Your task to perform on an android device: Go to notification settings Image 0: 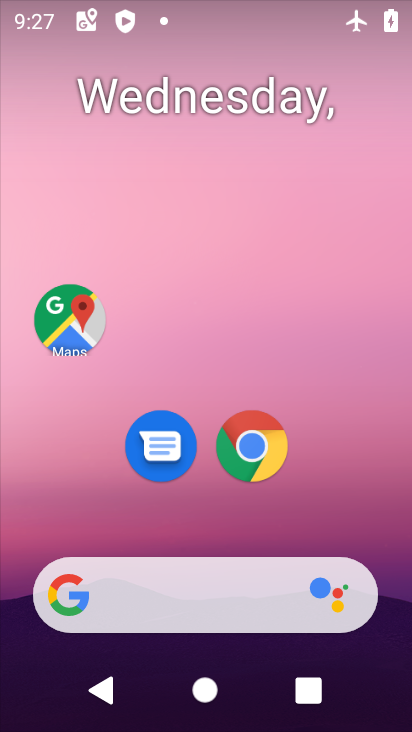
Step 0: drag from (159, 533) to (259, 211)
Your task to perform on an android device: Go to notification settings Image 1: 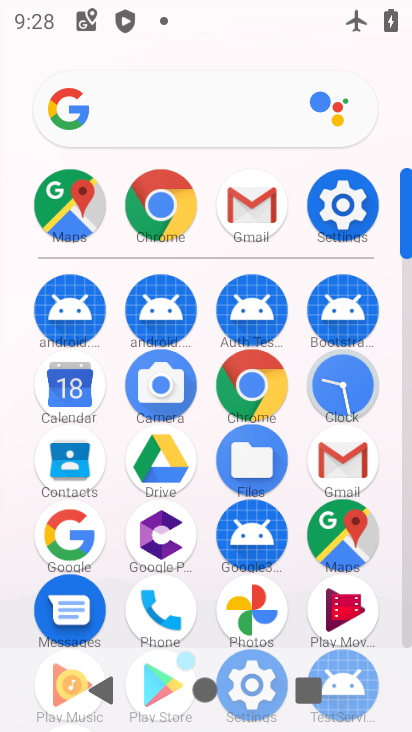
Step 1: click (344, 204)
Your task to perform on an android device: Go to notification settings Image 2: 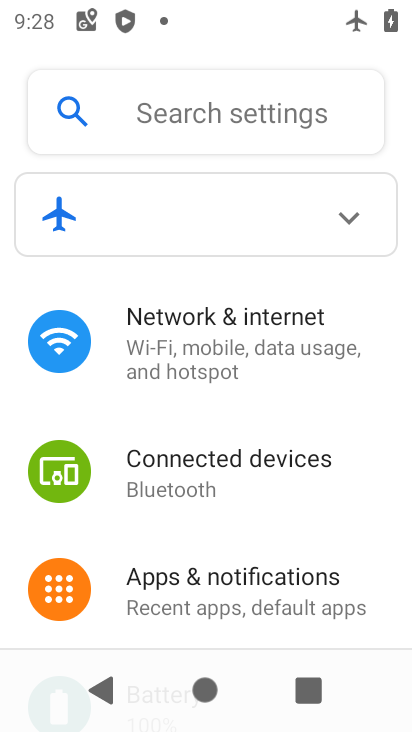
Step 2: click (233, 579)
Your task to perform on an android device: Go to notification settings Image 3: 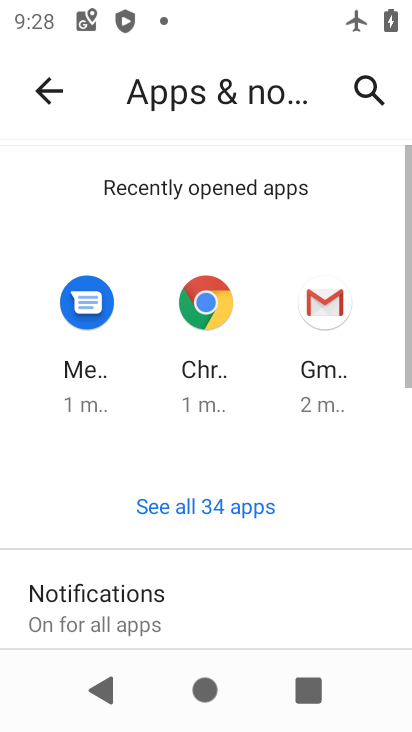
Step 3: drag from (168, 570) to (278, 270)
Your task to perform on an android device: Go to notification settings Image 4: 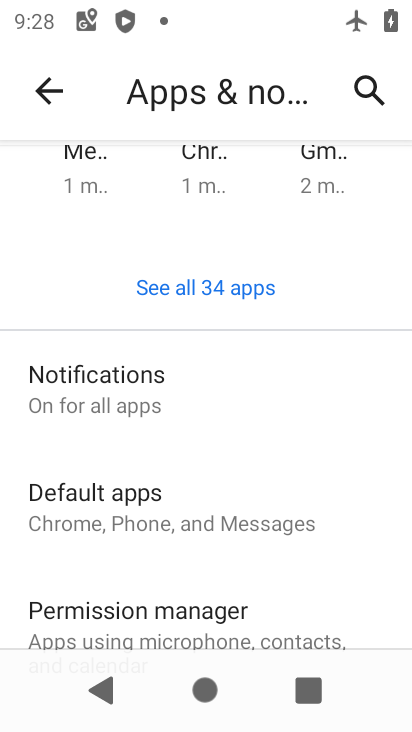
Step 4: click (130, 392)
Your task to perform on an android device: Go to notification settings Image 5: 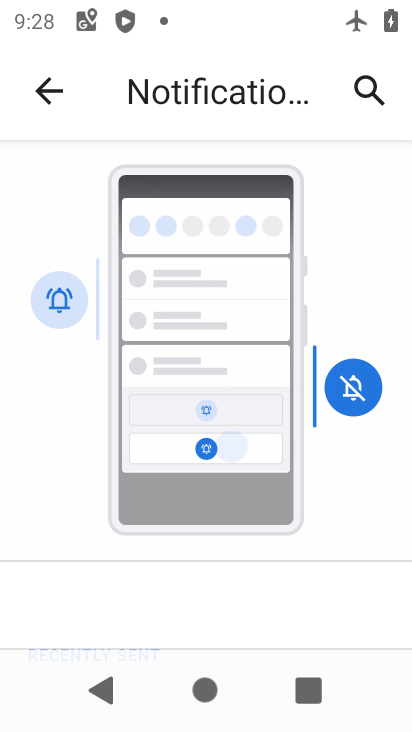
Step 5: task complete